Your task to perform on an android device: set an alarm Image 0: 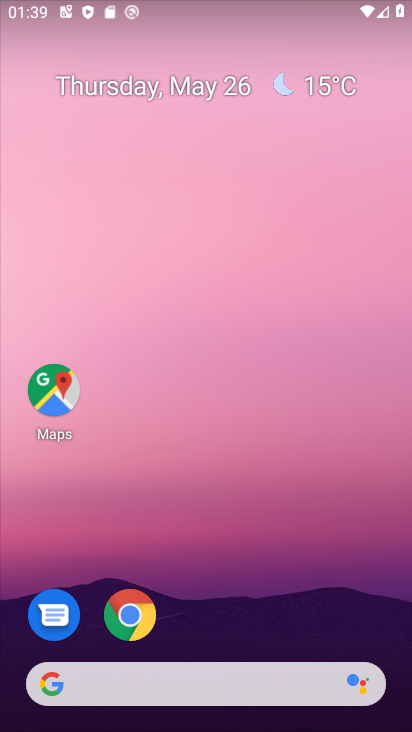
Step 0: drag from (225, 610) to (273, 80)
Your task to perform on an android device: set an alarm Image 1: 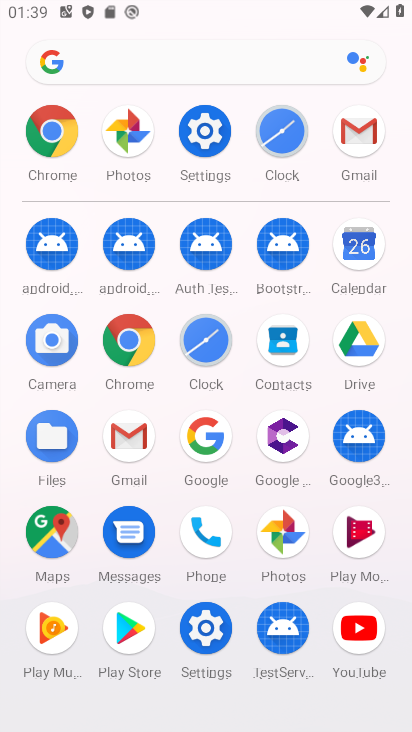
Step 1: click (205, 336)
Your task to perform on an android device: set an alarm Image 2: 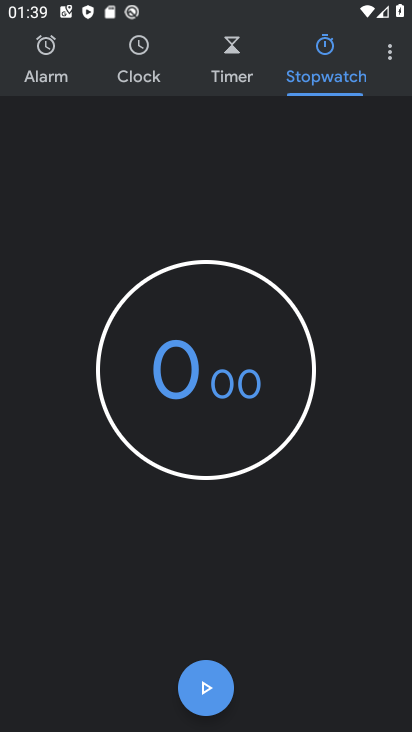
Step 2: click (27, 61)
Your task to perform on an android device: set an alarm Image 3: 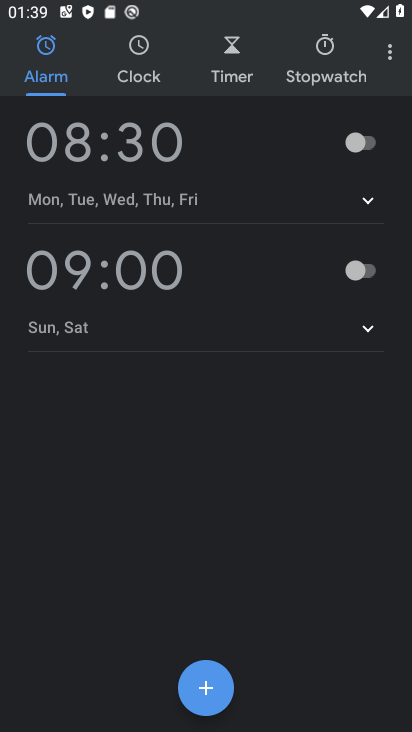
Step 3: click (356, 138)
Your task to perform on an android device: set an alarm Image 4: 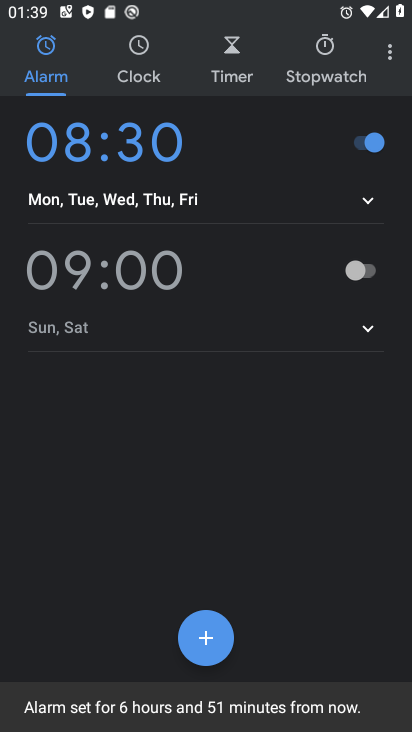
Step 4: task complete